Your task to perform on an android device: set the stopwatch Image 0: 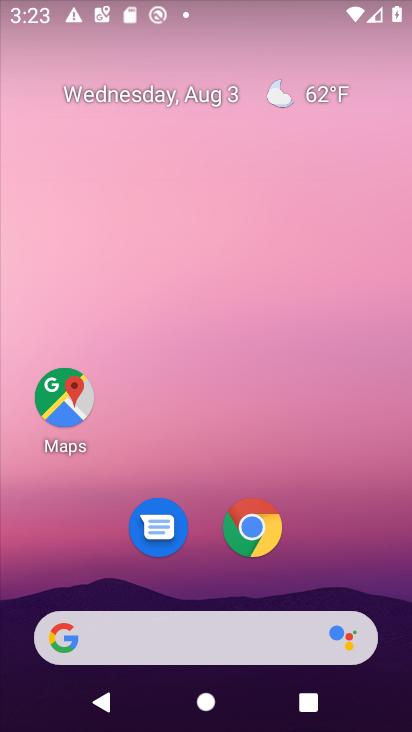
Step 0: drag from (342, 544) to (319, 111)
Your task to perform on an android device: set the stopwatch Image 1: 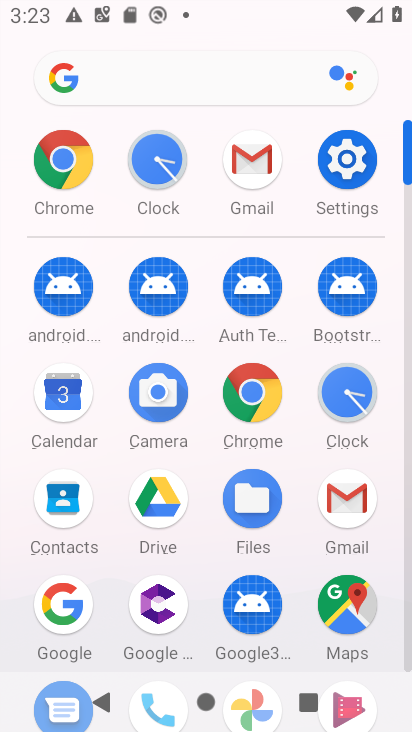
Step 1: click (347, 382)
Your task to perform on an android device: set the stopwatch Image 2: 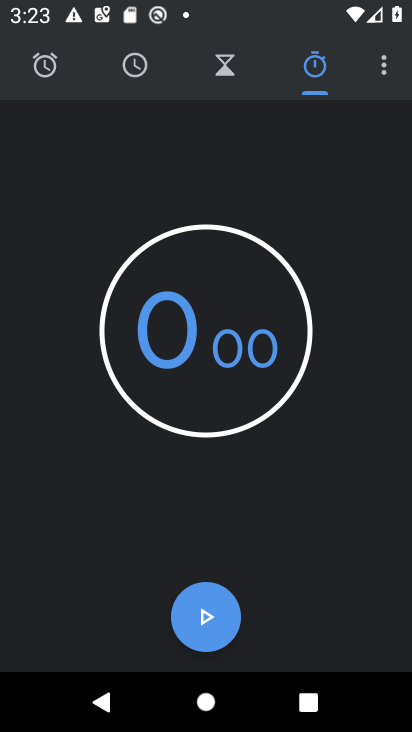
Step 2: click (193, 609)
Your task to perform on an android device: set the stopwatch Image 3: 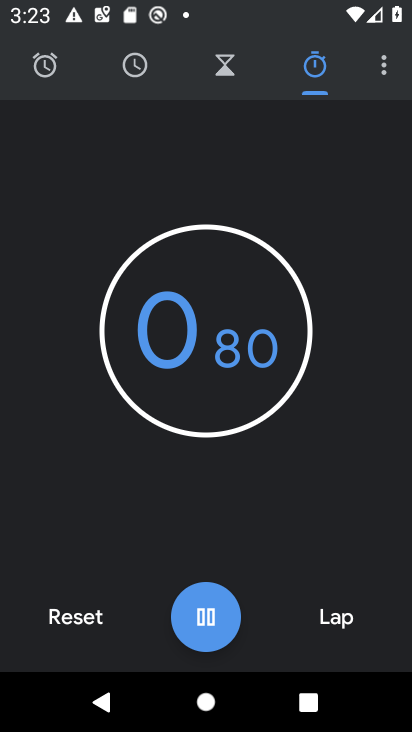
Step 3: click (193, 608)
Your task to perform on an android device: set the stopwatch Image 4: 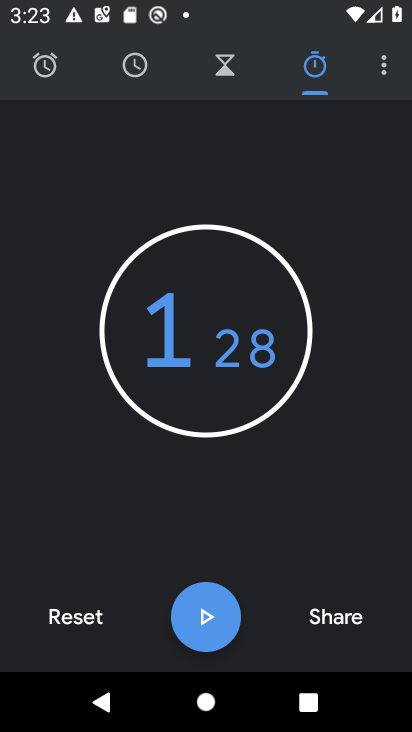
Step 4: click (193, 608)
Your task to perform on an android device: set the stopwatch Image 5: 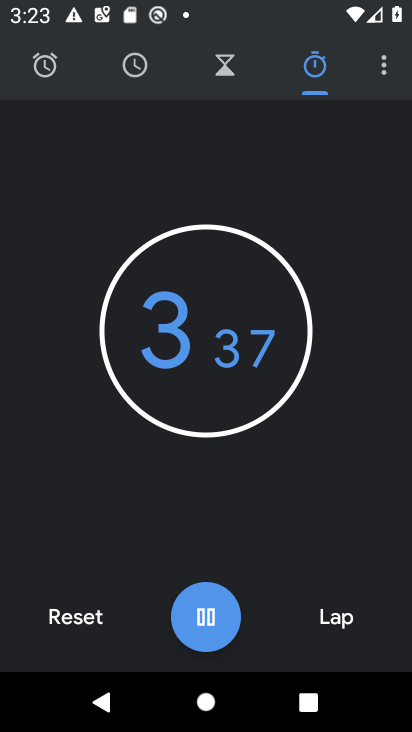
Step 5: click (204, 612)
Your task to perform on an android device: set the stopwatch Image 6: 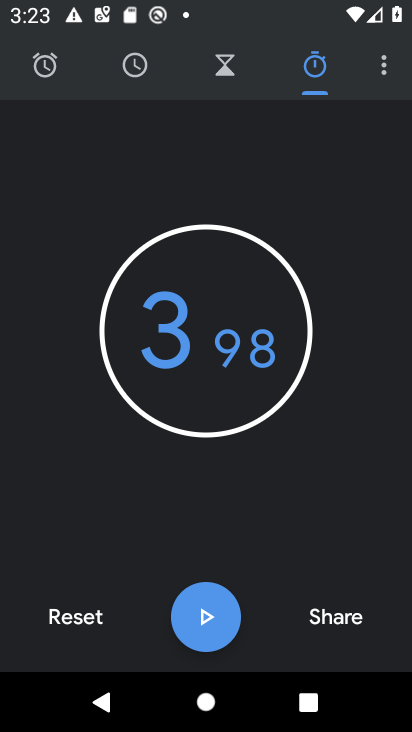
Step 6: task complete